Your task to perform on an android device: turn off location Image 0: 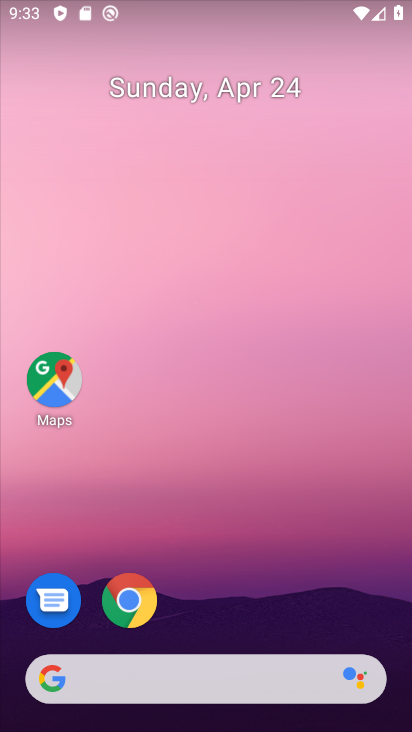
Step 0: drag from (244, 514) to (335, 20)
Your task to perform on an android device: turn off location Image 1: 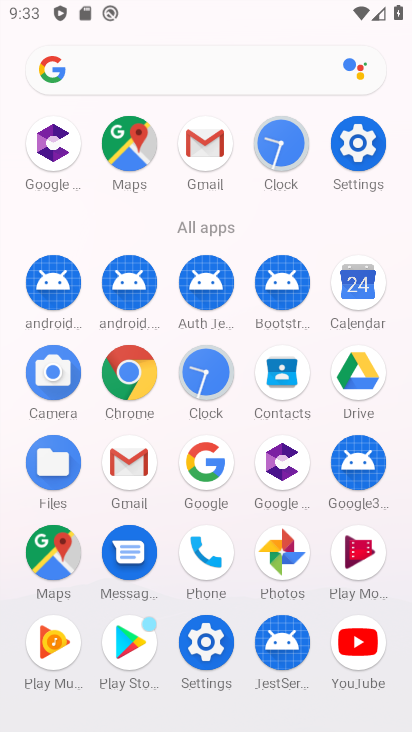
Step 1: click (363, 167)
Your task to perform on an android device: turn off location Image 2: 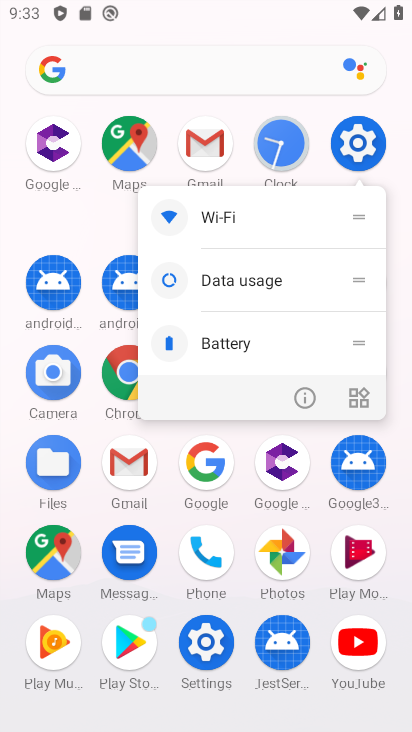
Step 2: click (365, 161)
Your task to perform on an android device: turn off location Image 3: 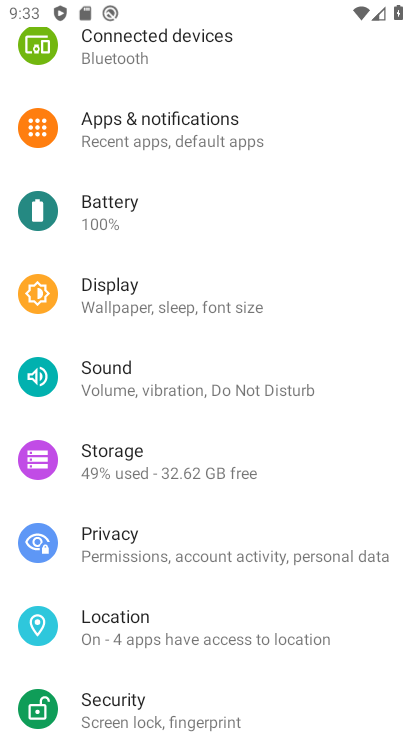
Step 3: drag from (201, 257) to (188, 144)
Your task to perform on an android device: turn off location Image 4: 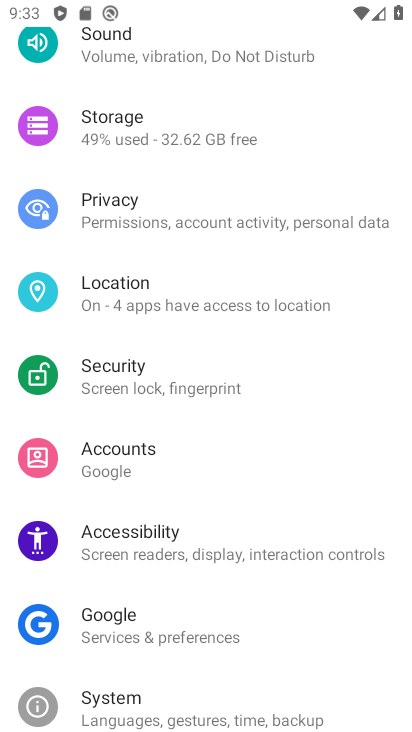
Step 4: click (155, 304)
Your task to perform on an android device: turn off location Image 5: 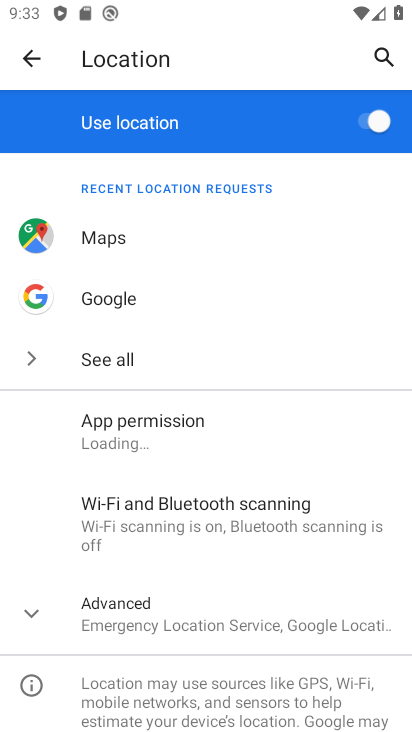
Step 5: click (355, 123)
Your task to perform on an android device: turn off location Image 6: 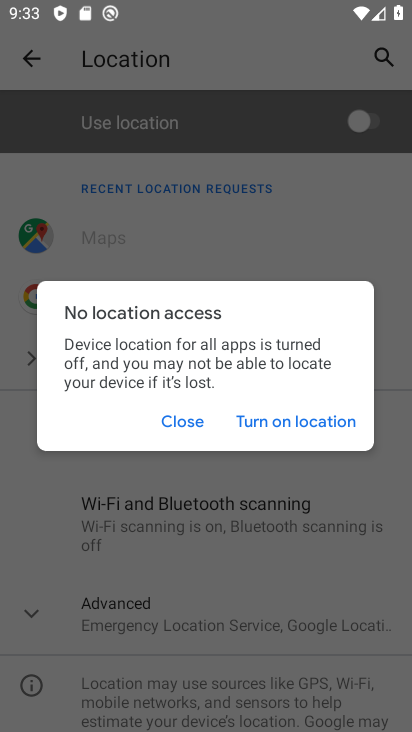
Step 6: click (176, 418)
Your task to perform on an android device: turn off location Image 7: 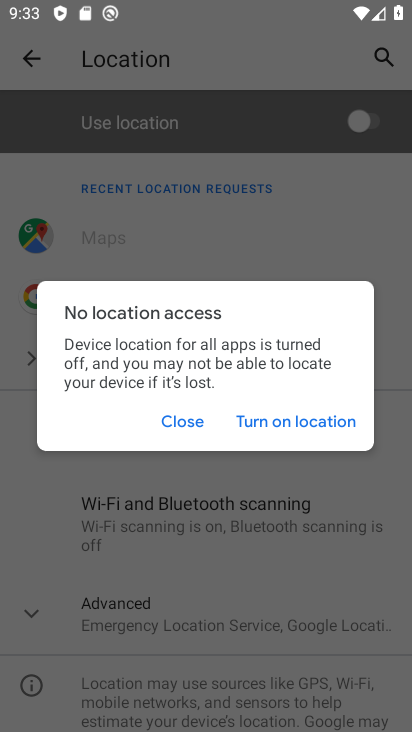
Step 7: click (176, 418)
Your task to perform on an android device: turn off location Image 8: 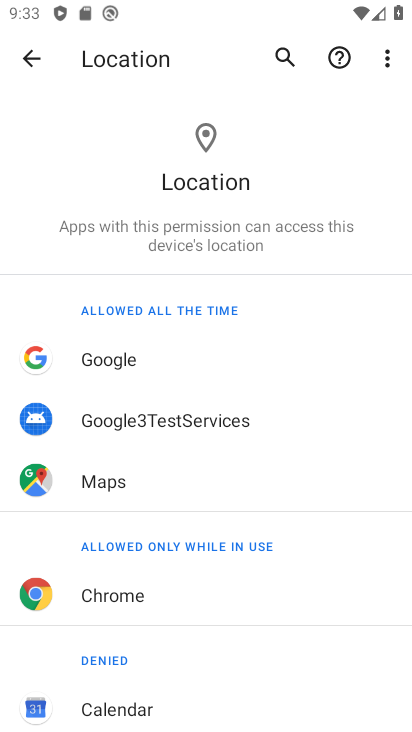
Step 8: task complete